Your task to perform on an android device: check android version Image 0: 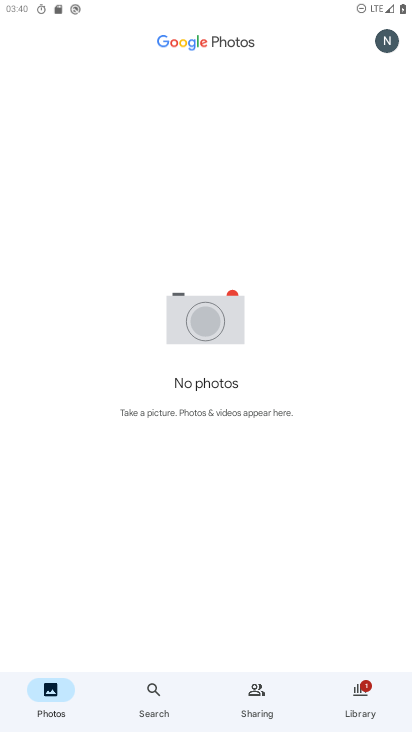
Step 0: press home button
Your task to perform on an android device: check android version Image 1: 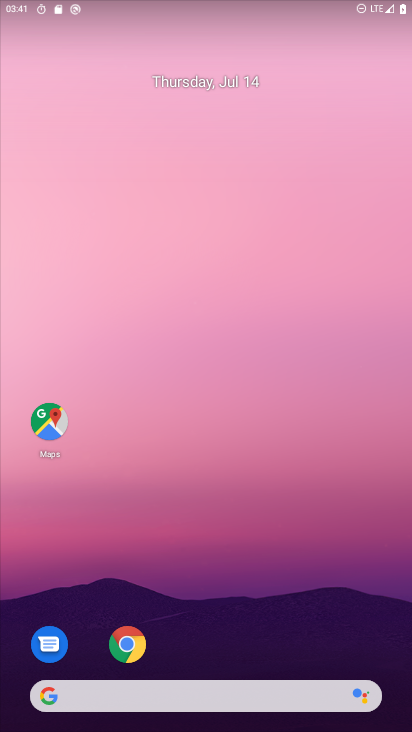
Step 1: drag from (312, 609) to (282, 118)
Your task to perform on an android device: check android version Image 2: 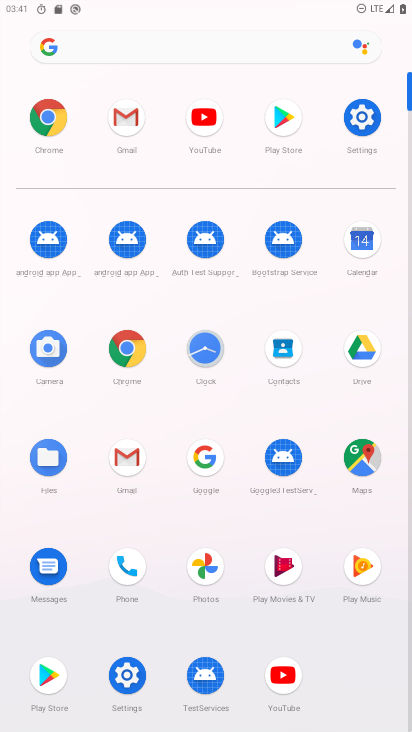
Step 2: click (365, 120)
Your task to perform on an android device: check android version Image 3: 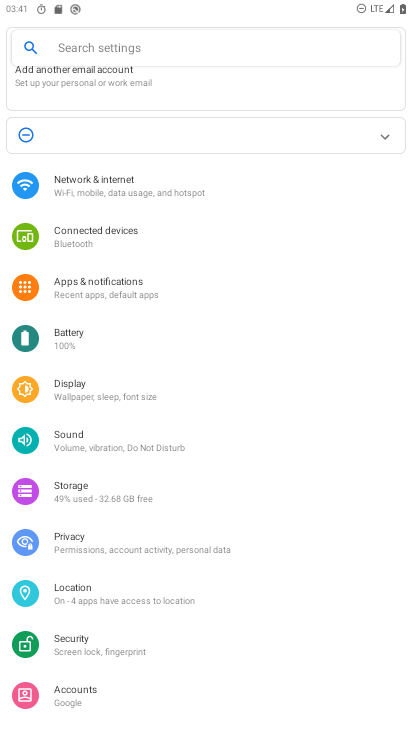
Step 3: drag from (150, 606) to (171, 178)
Your task to perform on an android device: check android version Image 4: 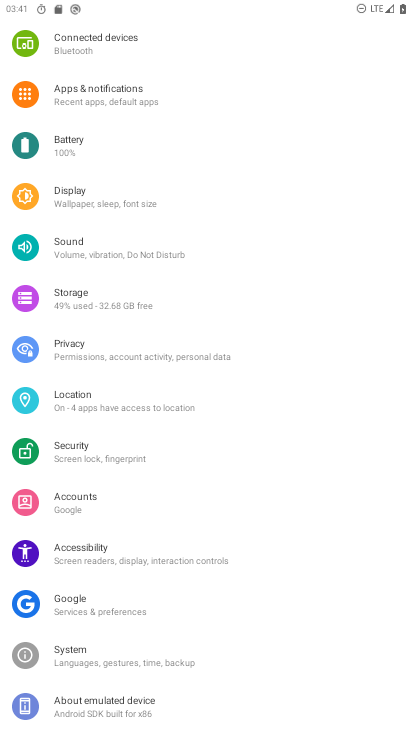
Step 4: click (125, 705)
Your task to perform on an android device: check android version Image 5: 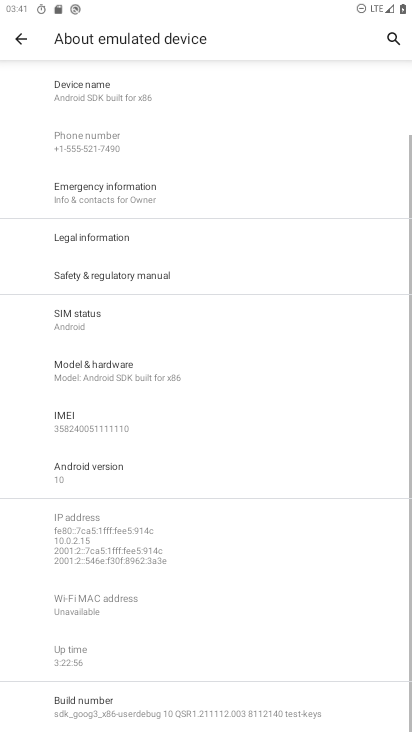
Step 5: click (121, 466)
Your task to perform on an android device: check android version Image 6: 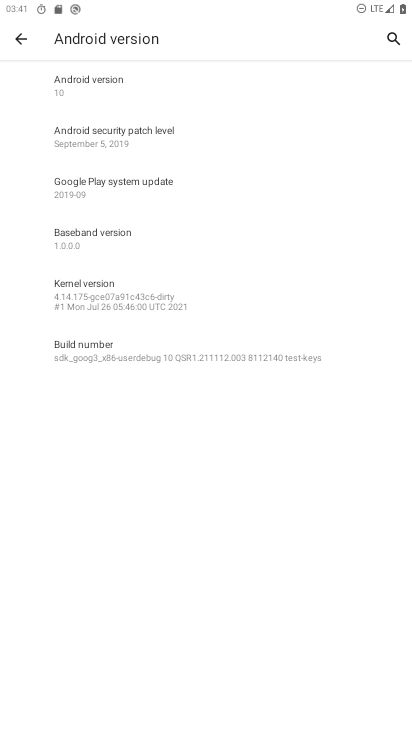
Step 6: task complete